Your task to perform on an android device: Open my contact list Image 0: 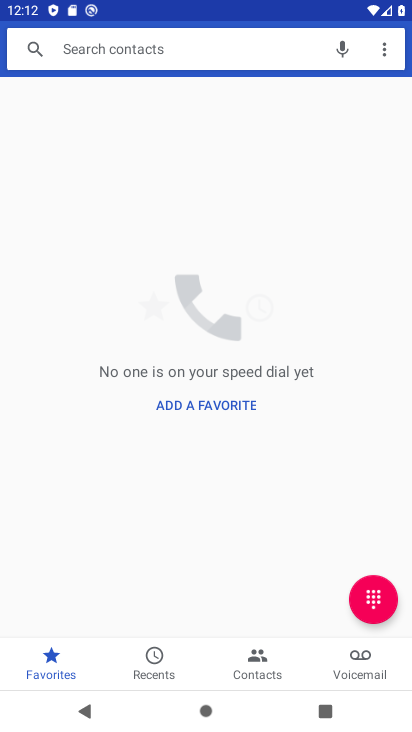
Step 0: press home button
Your task to perform on an android device: Open my contact list Image 1: 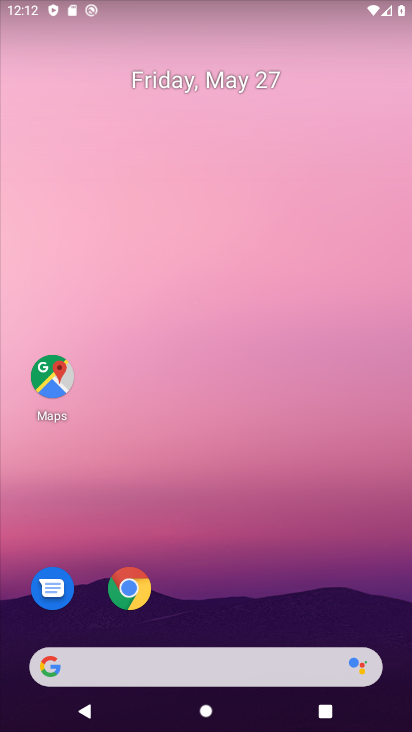
Step 1: drag from (224, 637) to (301, 48)
Your task to perform on an android device: Open my contact list Image 2: 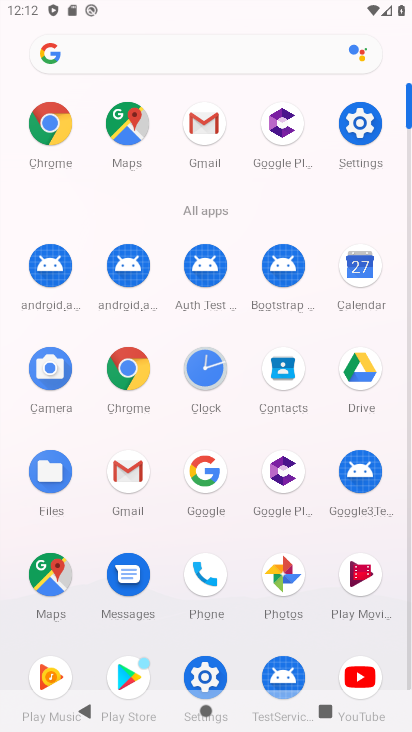
Step 2: click (281, 359)
Your task to perform on an android device: Open my contact list Image 3: 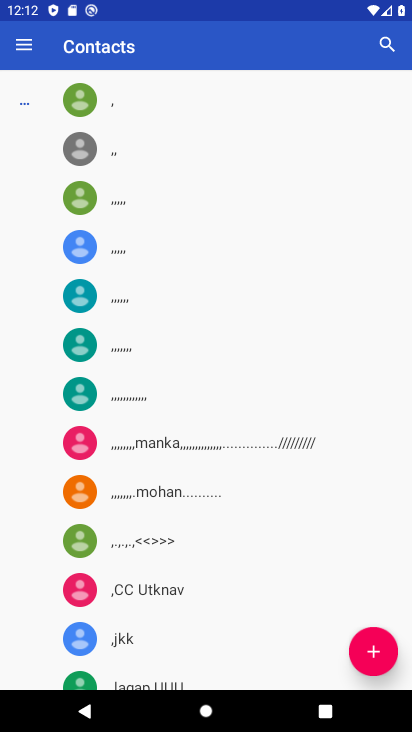
Step 3: click (185, 586)
Your task to perform on an android device: Open my contact list Image 4: 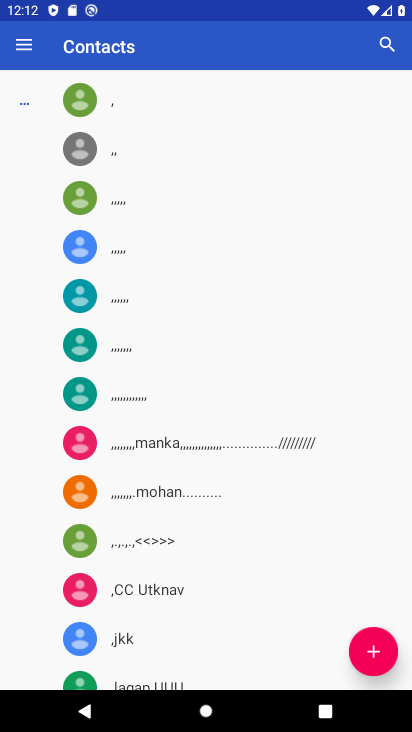
Step 4: task complete